Your task to perform on an android device: open device folders in google photos Image 0: 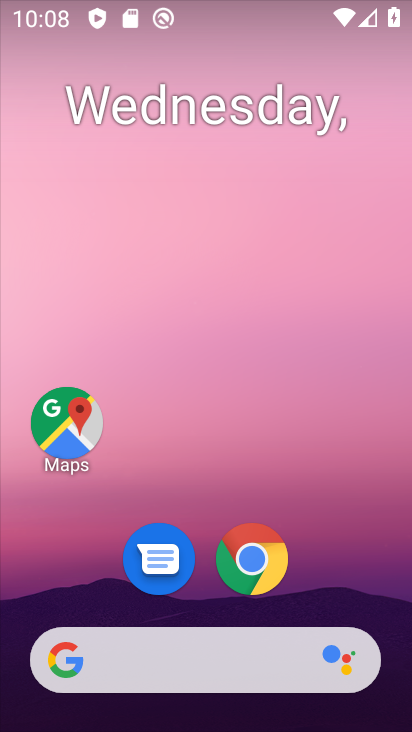
Step 0: drag from (324, 551) to (358, 70)
Your task to perform on an android device: open device folders in google photos Image 1: 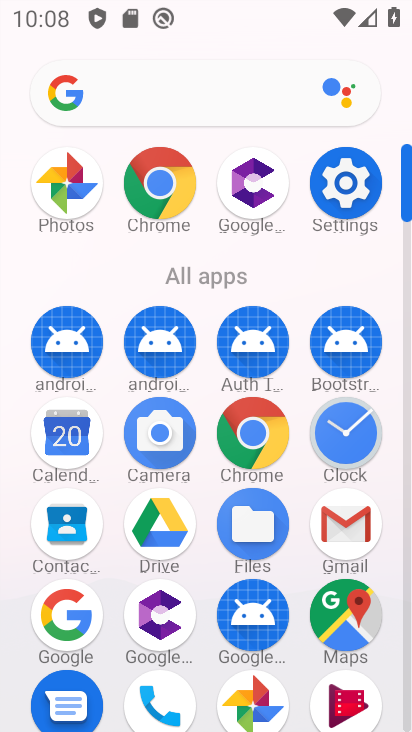
Step 1: click (262, 674)
Your task to perform on an android device: open device folders in google photos Image 2: 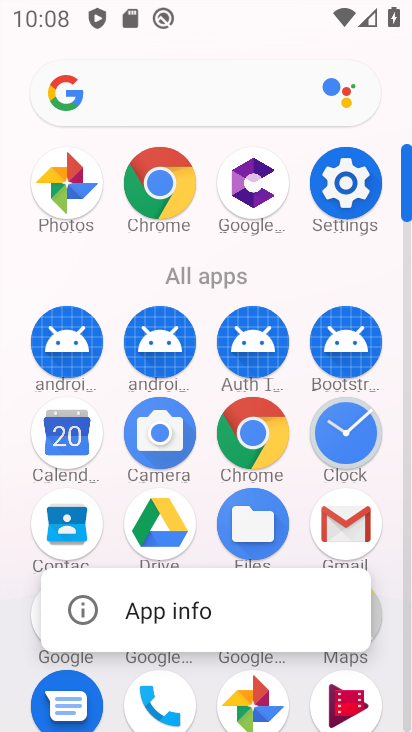
Step 2: click (260, 674)
Your task to perform on an android device: open device folders in google photos Image 3: 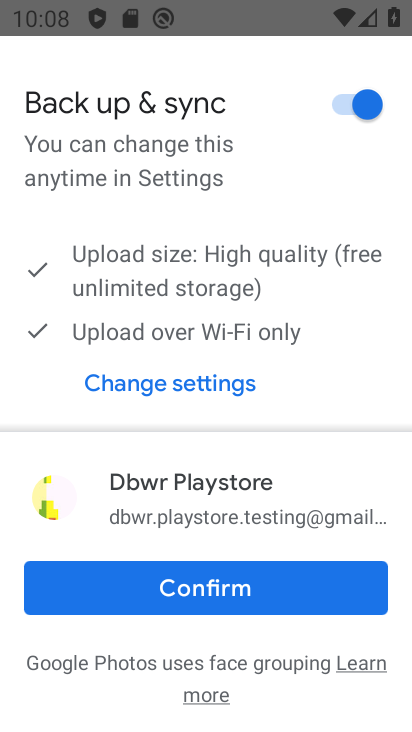
Step 3: click (250, 573)
Your task to perform on an android device: open device folders in google photos Image 4: 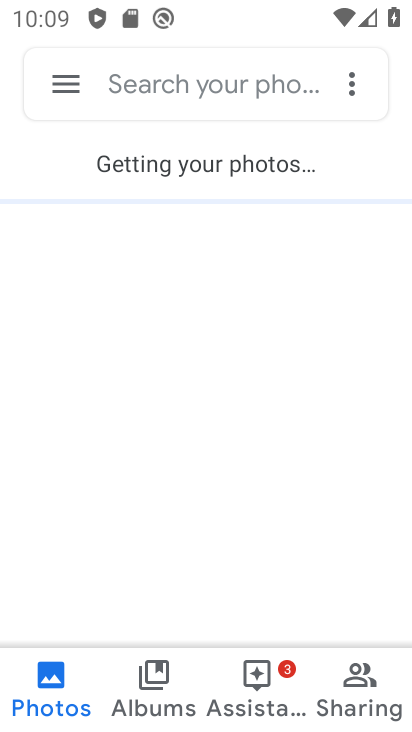
Step 4: click (142, 718)
Your task to perform on an android device: open device folders in google photos Image 5: 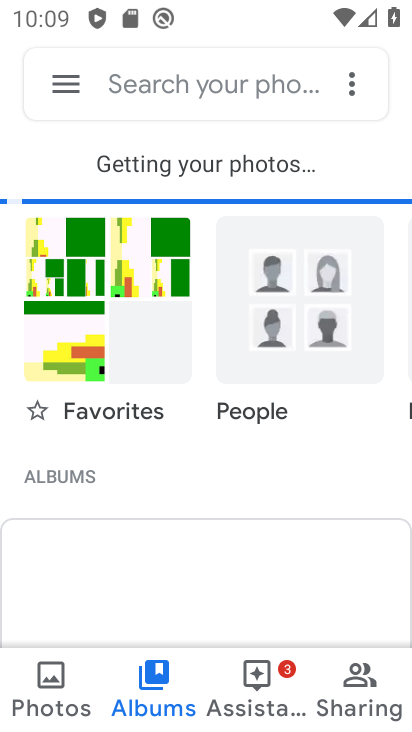
Step 5: task complete